Your task to perform on an android device: check storage Image 0: 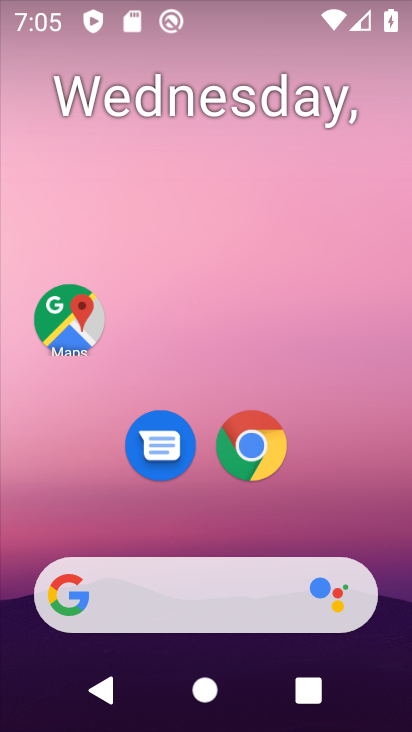
Step 0: drag from (235, 354) to (17, 63)
Your task to perform on an android device: check storage Image 1: 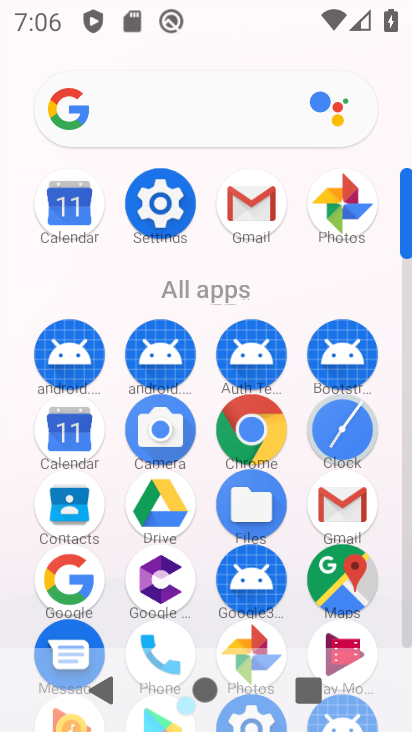
Step 1: click (173, 171)
Your task to perform on an android device: check storage Image 2: 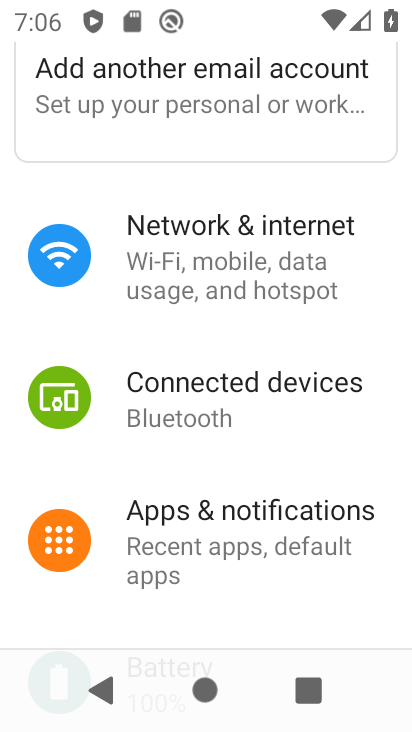
Step 2: drag from (213, 599) to (179, 128)
Your task to perform on an android device: check storage Image 3: 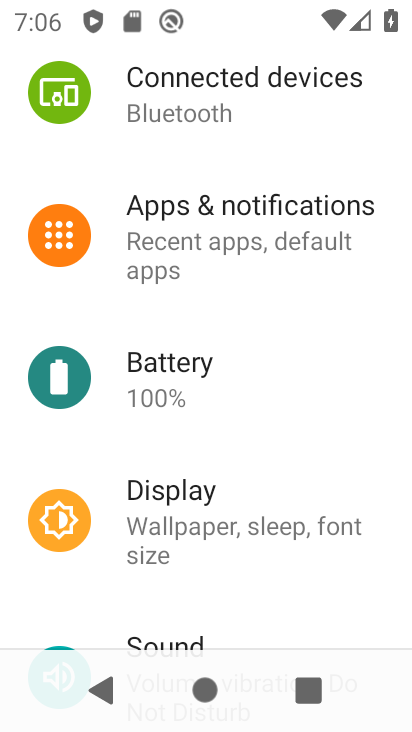
Step 3: click (169, 371)
Your task to perform on an android device: check storage Image 4: 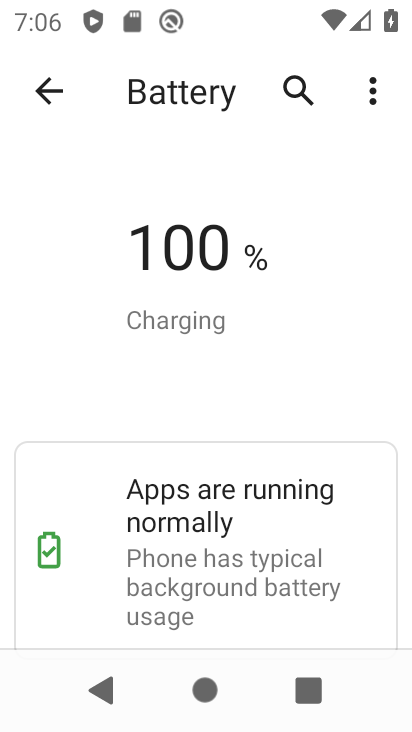
Step 4: drag from (217, 563) to (212, 222)
Your task to perform on an android device: check storage Image 5: 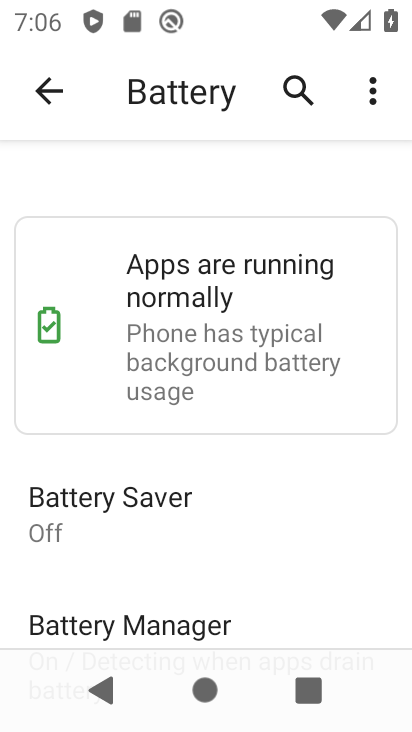
Step 5: click (59, 112)
Your task to perform on an android device: check storage Image 6: 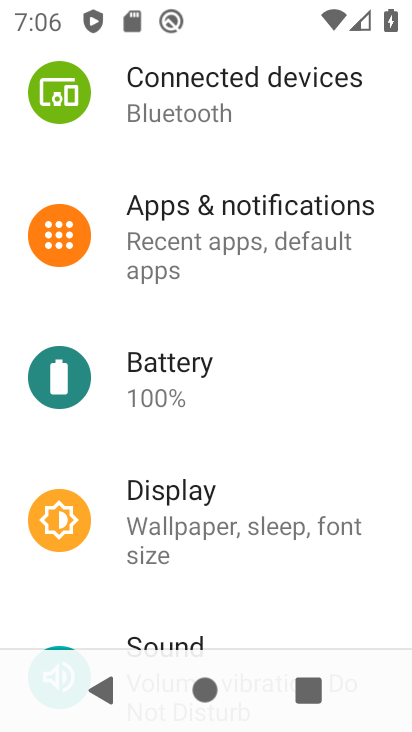
Step 6: drag from (209, 586) to (204, 271)
Your task to perform on an android device: check storage Image 7: 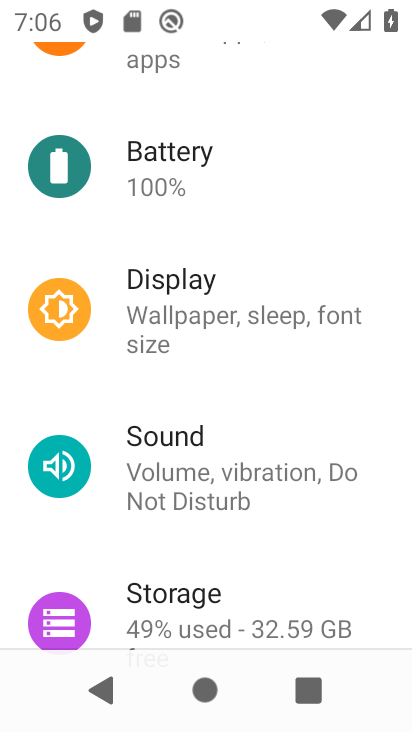
Step 7: click (189, 610)
Your task to perform on an android device: check storage Image 8: 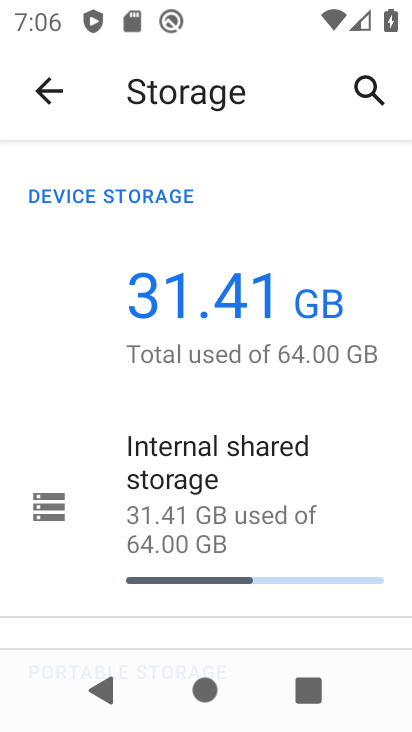
Step 8: task complete